Your task to perform on an android device: manage bookmarks in the chrome app Image 0: 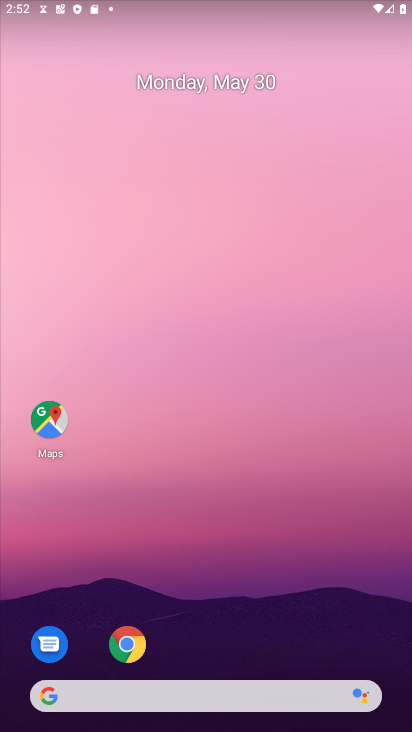
Step 0: press home button
Your task to perform on an android device: manage bookmarks in the chrome app Image 1: 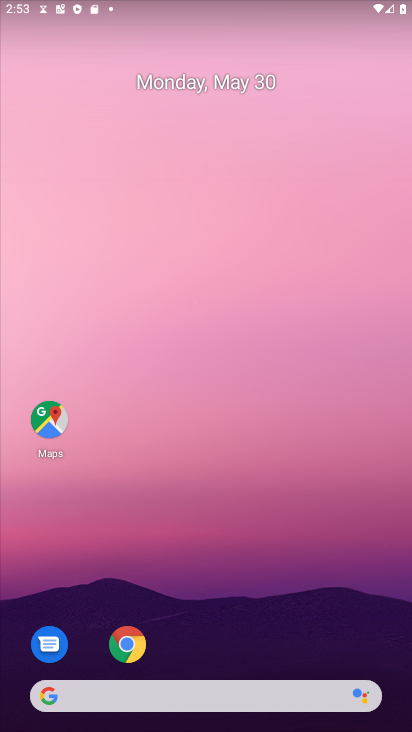
Step 1: press home button
Your task to perform on an android device: manage bookmarks in the chrome app Image 2: 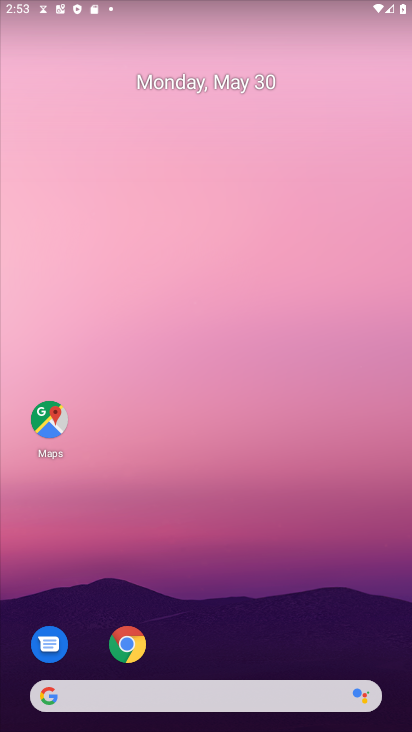
Step 2: click (128, 639)
Your task to perform on an android device: manage bookmarks in the chrome app Image 3: 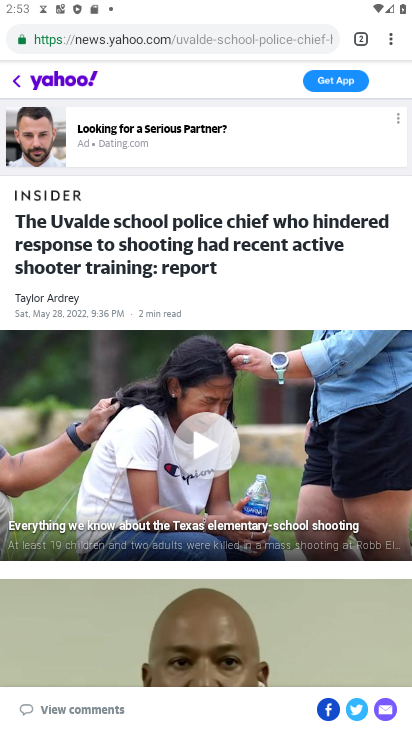
Step 3: click (386, 35)
Your task to perform on an android device: manage bookmarks in the chrome app Image 4: 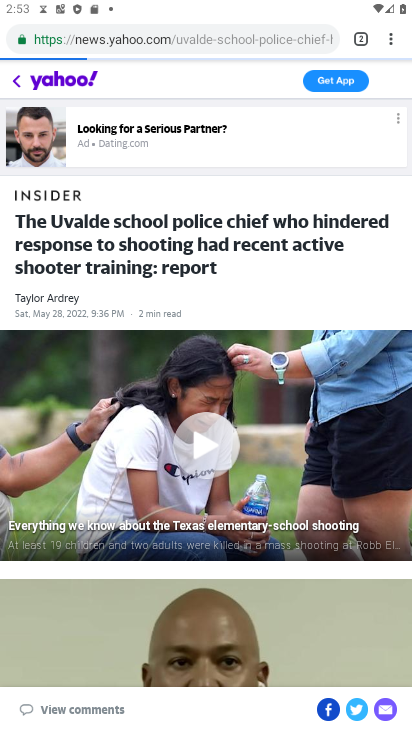
Step 4: task complete